Your task to perform on an android device: turn off notifications in google photos Image 0: 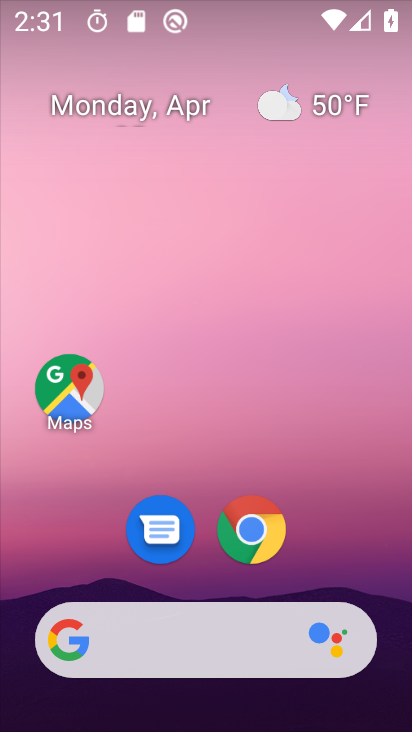
Step 0: drag from (385, 483) to (392, 136)
Your task to perform on an android device: turn off notifications in google photos Image 1: 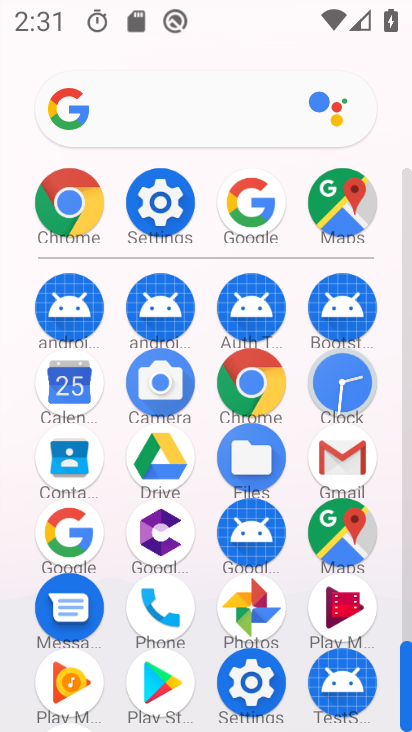
Step 1: click (254, 598)
Your task to perform on an android device: turn off notifications in google photos Image 2: 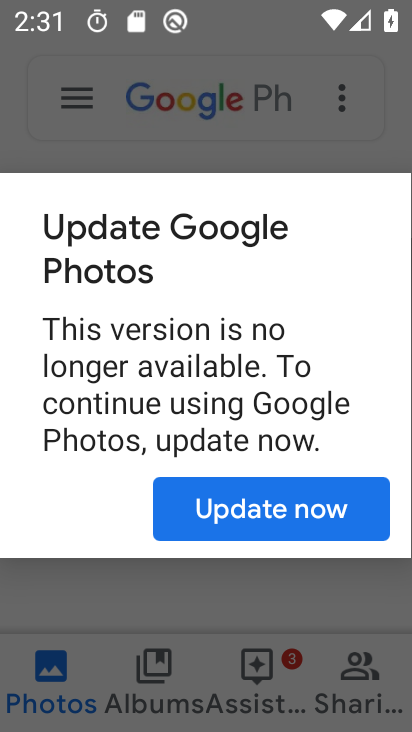
Step 2: press home button
Your task to perform on an android device: turn off notifications in google photos Image 3: 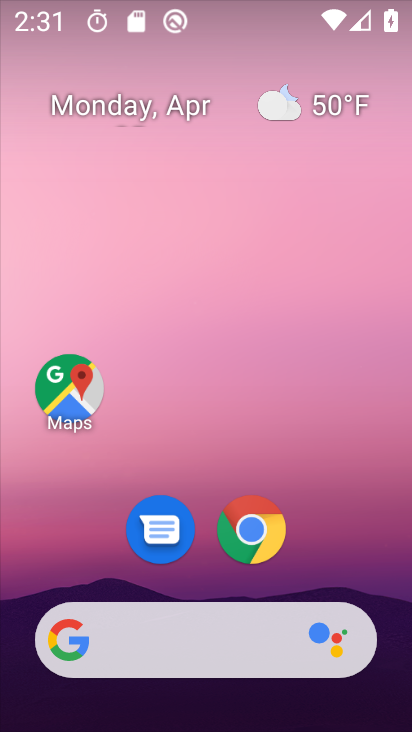
Step 3: click (391, 187)
Your task to perform on an android device: turn off notifications in google photos Image 4: 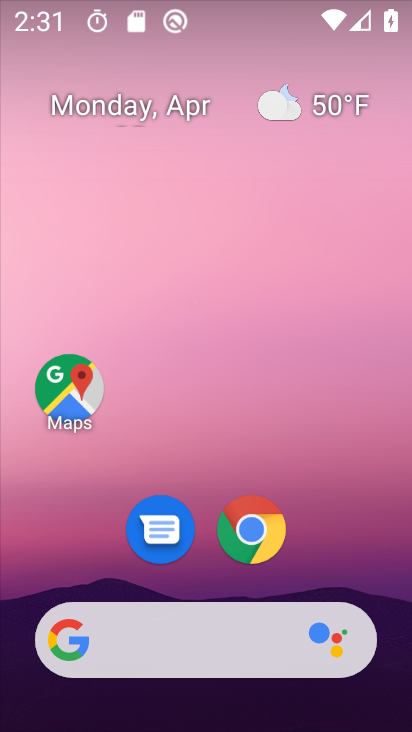
Step 4: drag from (386, 537) to (362, 120)
Your task to perform on an android device: turn off notifications in google photos Image 5: 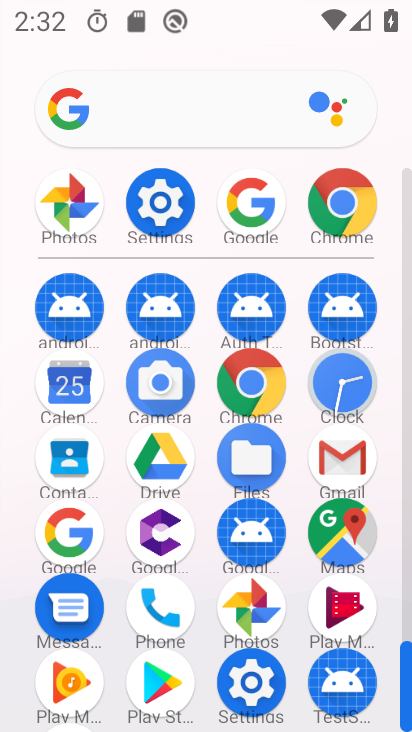
Step 5: click (240, 614)
Your task to perform on an android device: turn off notifications in google photos Image 6: 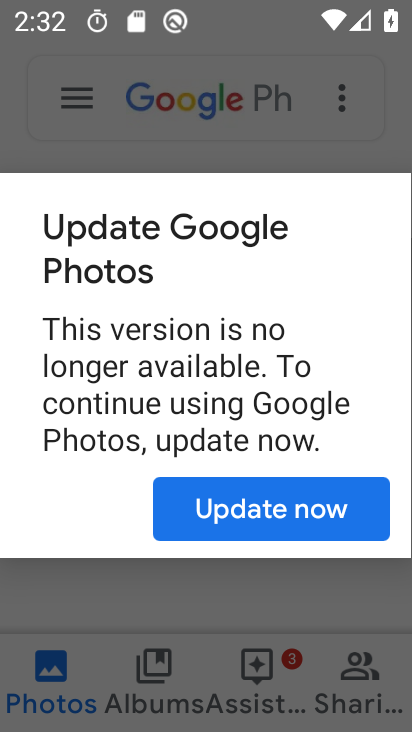
Step 6: click (269, 504)
Your task to perform on an android device: turn off notifications in google photos Image 7: 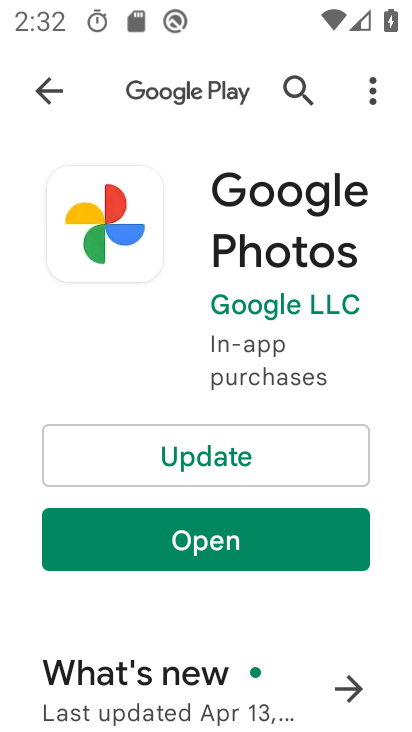
Step 7: click (201, 447)
Your task to perform on an android device: turn off notifications in google photos Image 8: 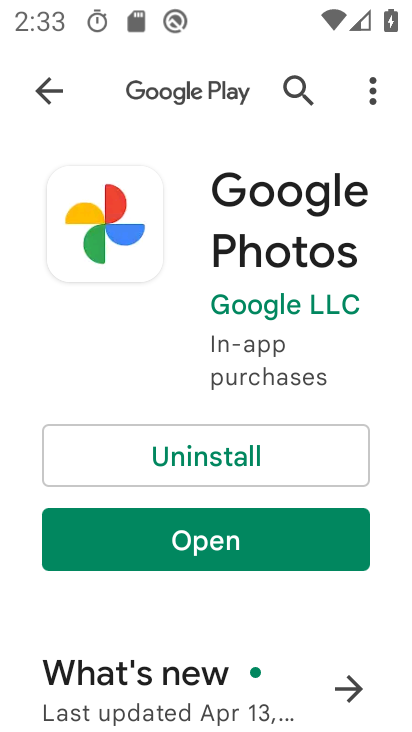
Step 8: click (200, 540)
Your task to perform on an android device: turn off notifications in google photos Image 9: 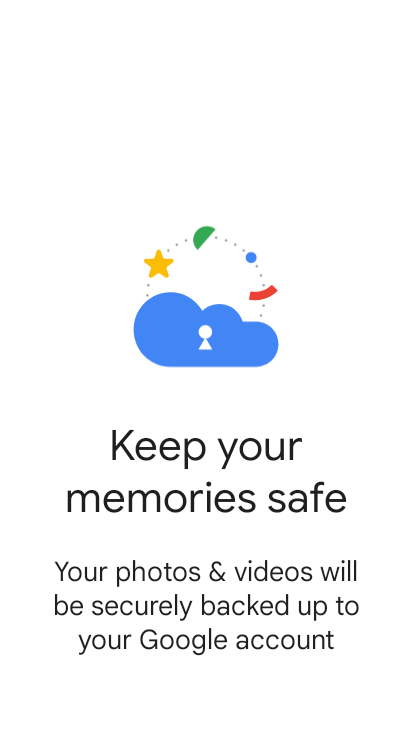
Step 9: task complete